Your task to perform on an android device: open a new tab in the chrome app Image 0: 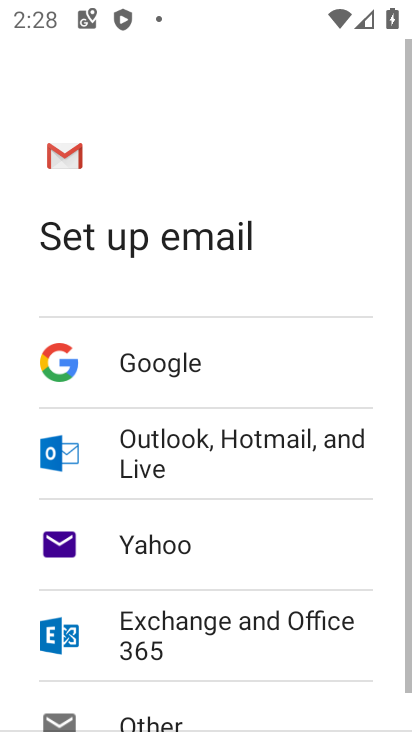
Step 0: press home button
Your task to perform on an android device: open a new tab in the chrome app Image 1: 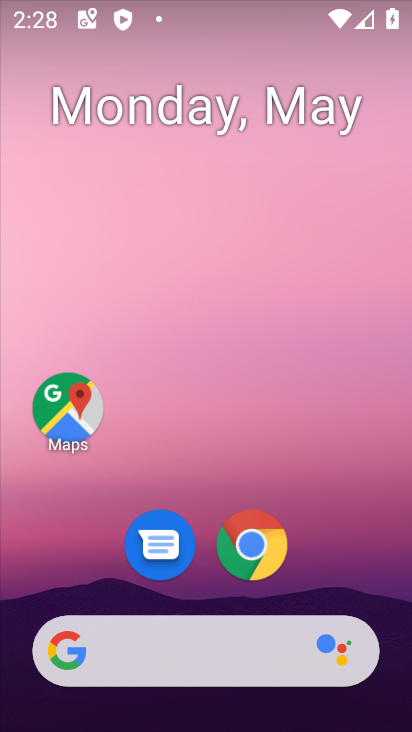
Step 1: click (251, 542)
Your task to perform on an android device: open a new tab in the chrome app Image 2: 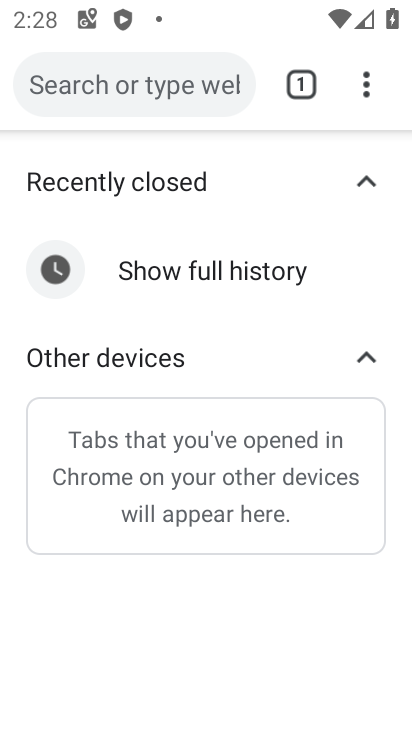
Step 2: click (369, 88)
Your task to perform on an android device: open a new tab in the chrome app Image 3: 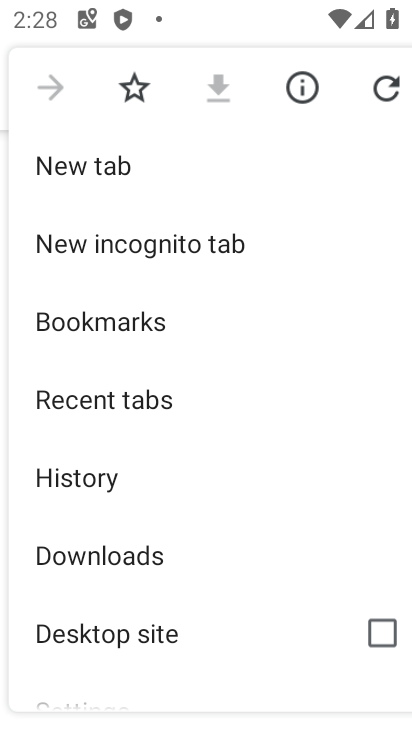
Step 3: click (116, 171)
Your task to perform on an android device: open a new tab in the chrome app Image 4: 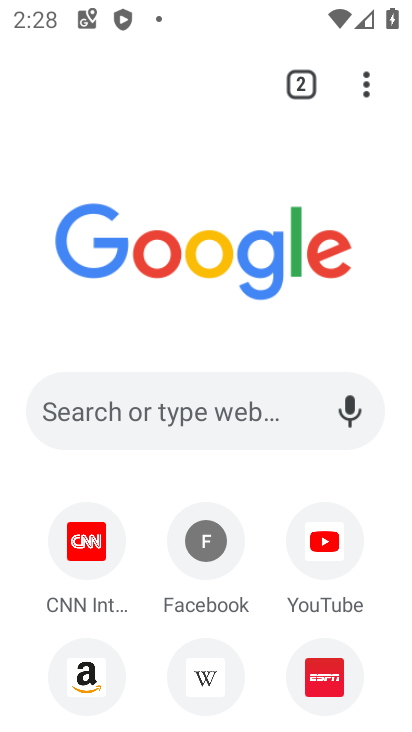
Step 4: task complete